Your task to perform on an android device: Open Google Image 0: 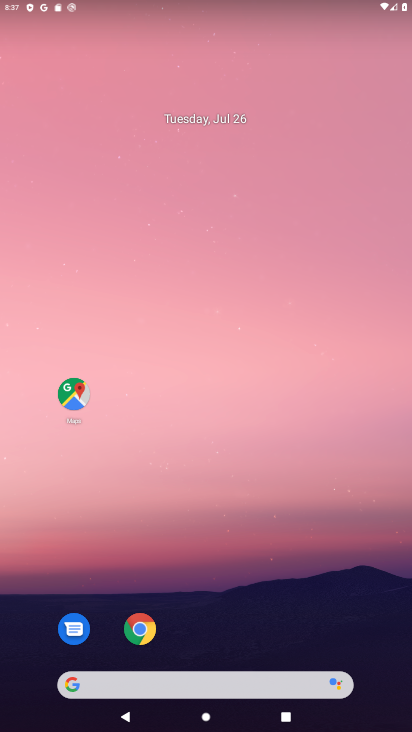
Step 0: press home button
Your task to perform on an android device: Open Google Image 1: 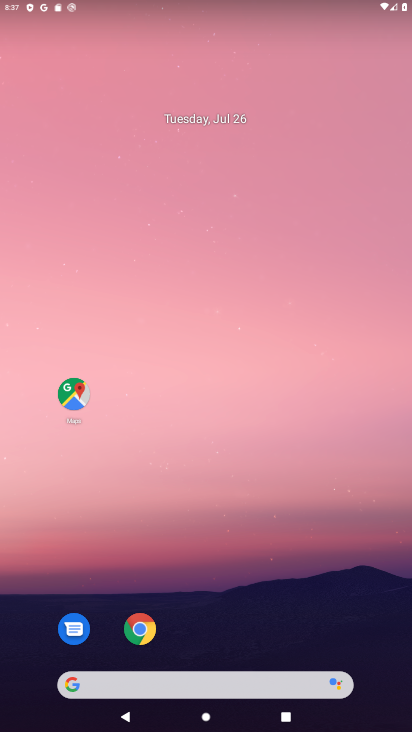
Step 1: drag from (239, 649) to (239, 107)
Your task to perform on an android device: Open Google Image 2: 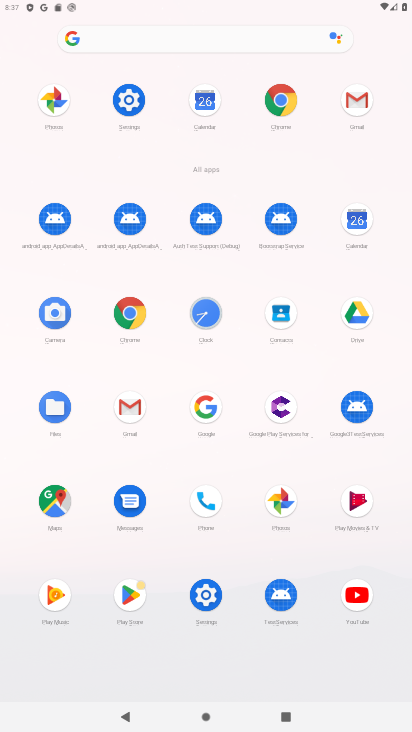
Step 2: click (204, 412)
Your task to perform on an android device: Open Google Image 3: 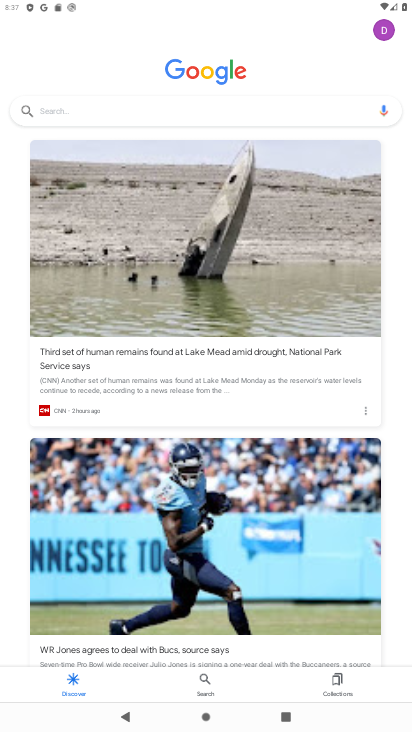
Step 3: task complete